Your task to perform on an android device: Open the map Image 0: 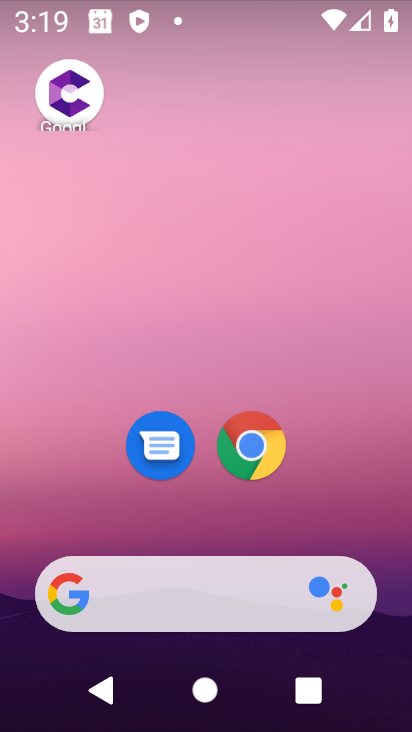
Step 0: drag from (308, 524) to (342, 118)
Your task to perform on an android device: Open the map Image 1: 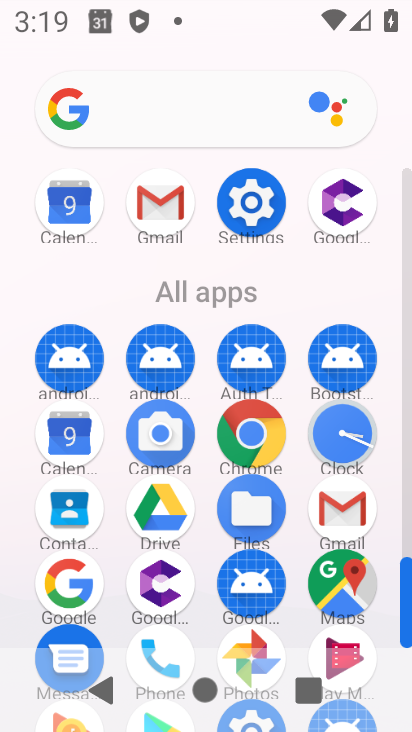
Step 1: click (334, 578)
Your task to perform on an android device: Open the map Image 2: 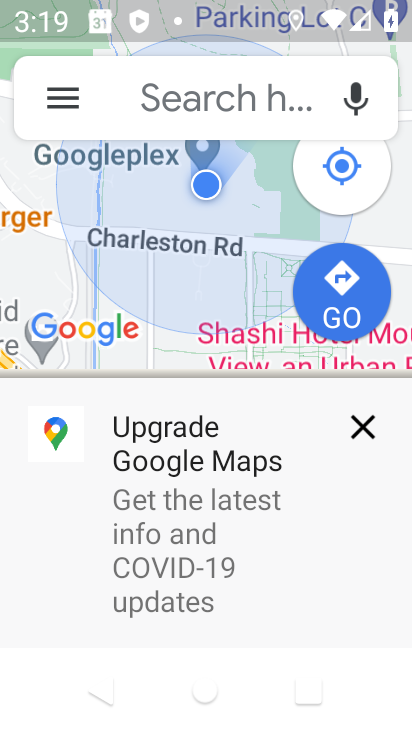
Step 2: task complete